Your task to perform on an android device: change the clock style Image 0: 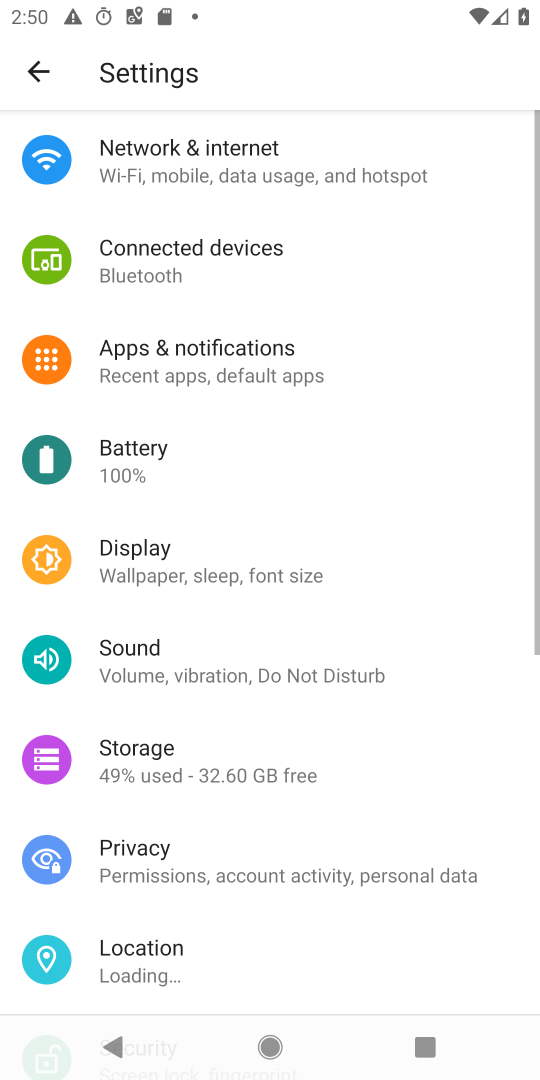
Step 0: press home button
Your task to perform on an android device: change the clock style Image 1: 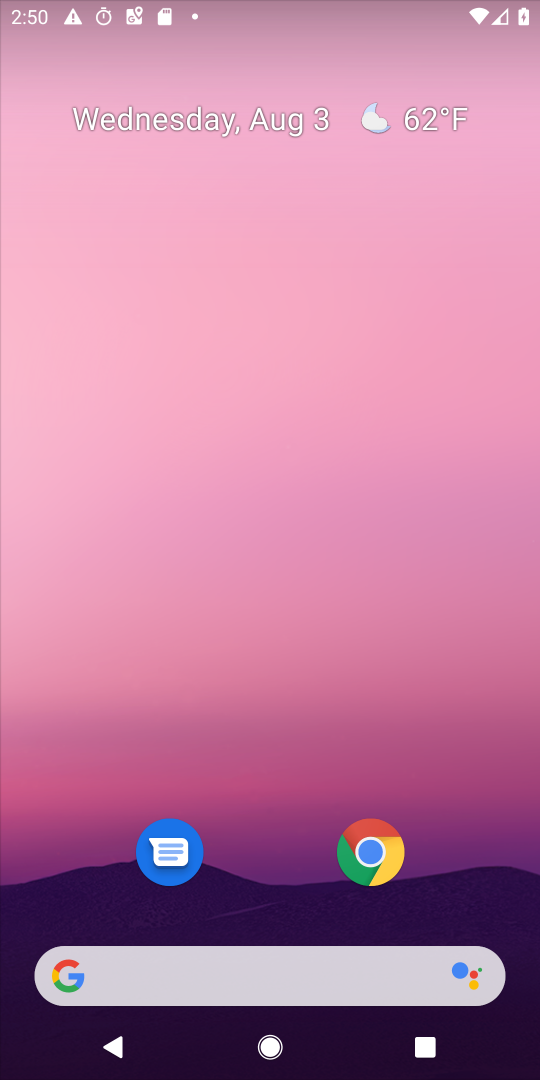
Step 1: drag from (512, 901) to (260, 47)
Your task to perform on an android device: change the clock style Image 2: 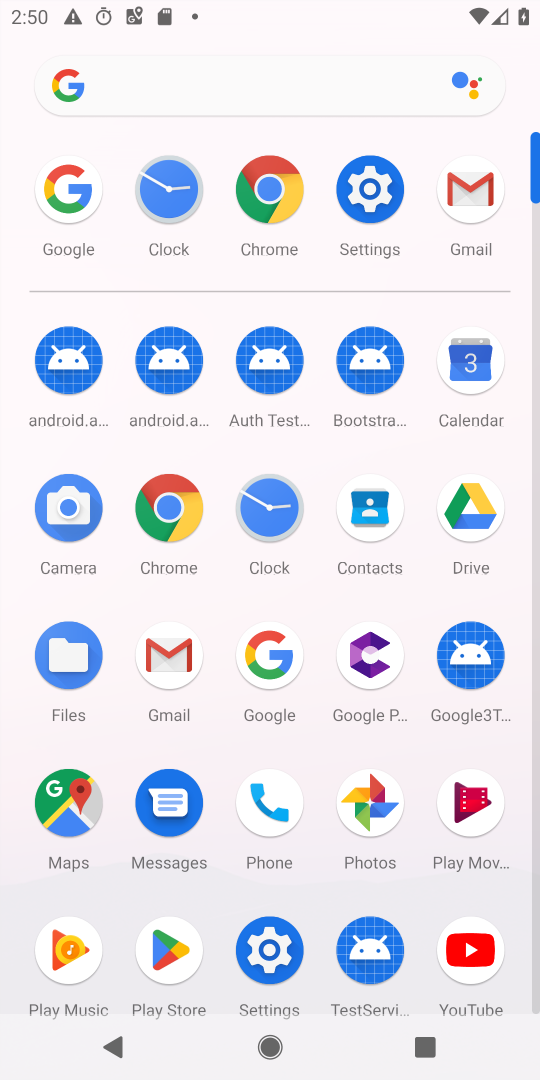
Step 2: click (299, 511)
Your task to perform on an android device: change the clock style Image 3: 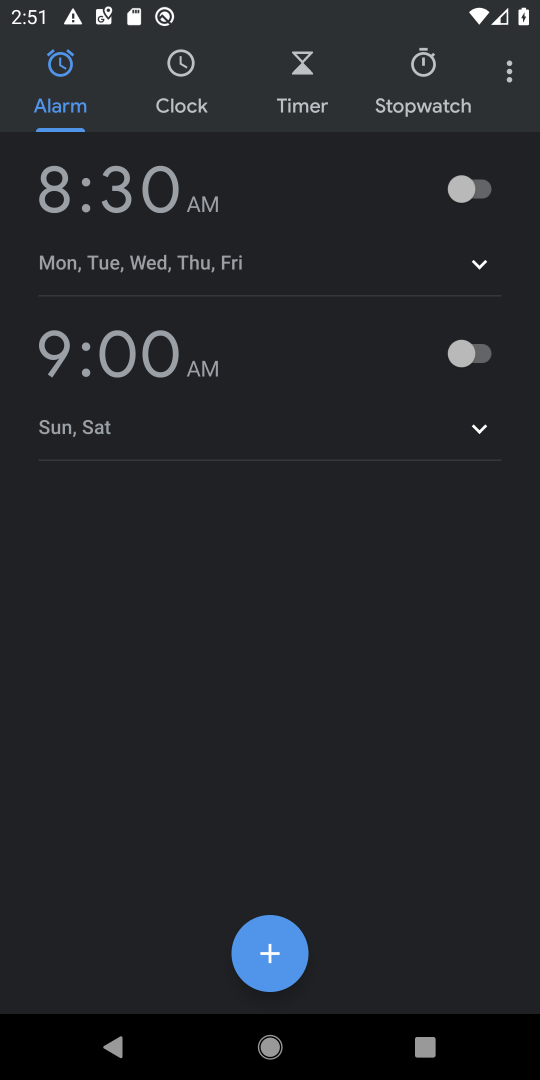
Step 3: click (508, 68)
Your task to perform on an android device: change the clock style Image 4: 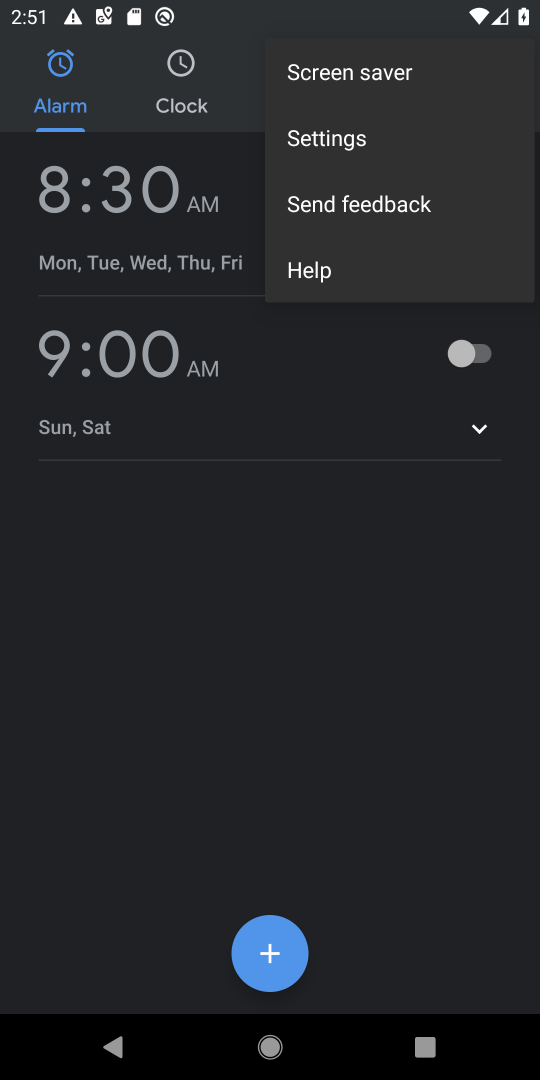
Step 4: click (348, 163)
Your task to perform on an android device: change the clock style Image 5: 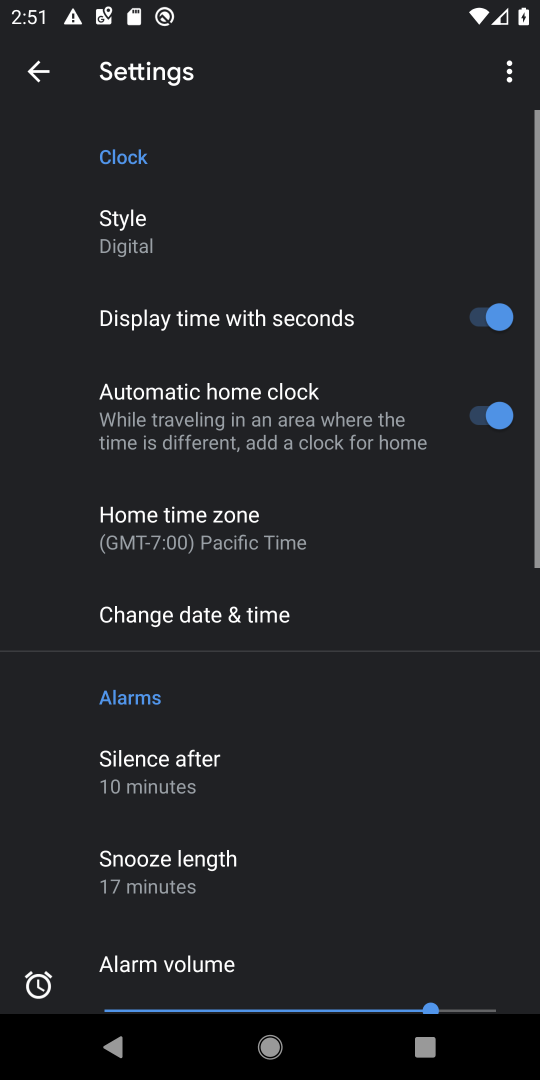
Step 5: click (111, 227)
Your task to perform on an android device: change the clock style Image 6: 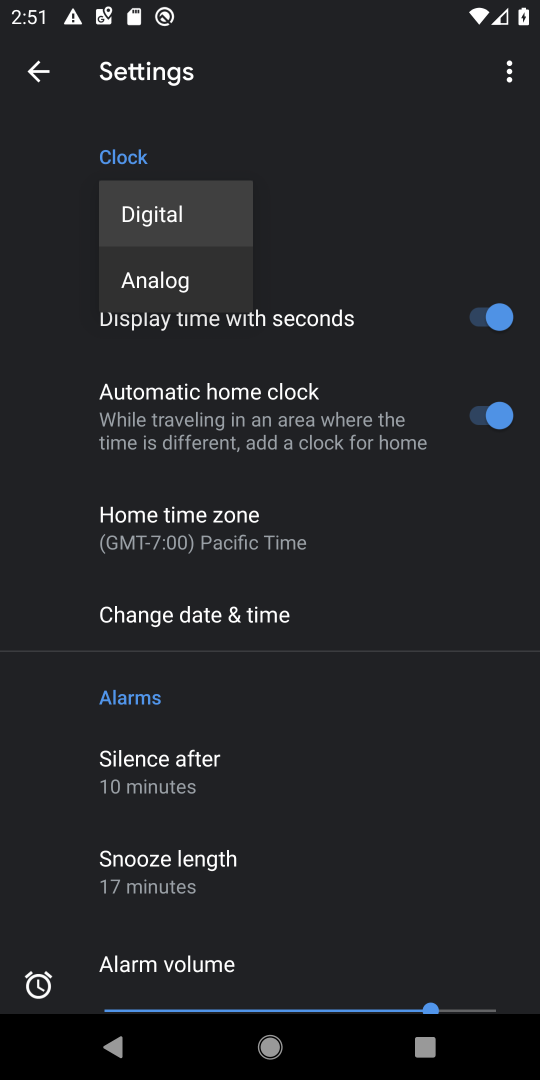
Step 6: click (143, 289)
Your task to perform on an android device: change the clock style Image 7: 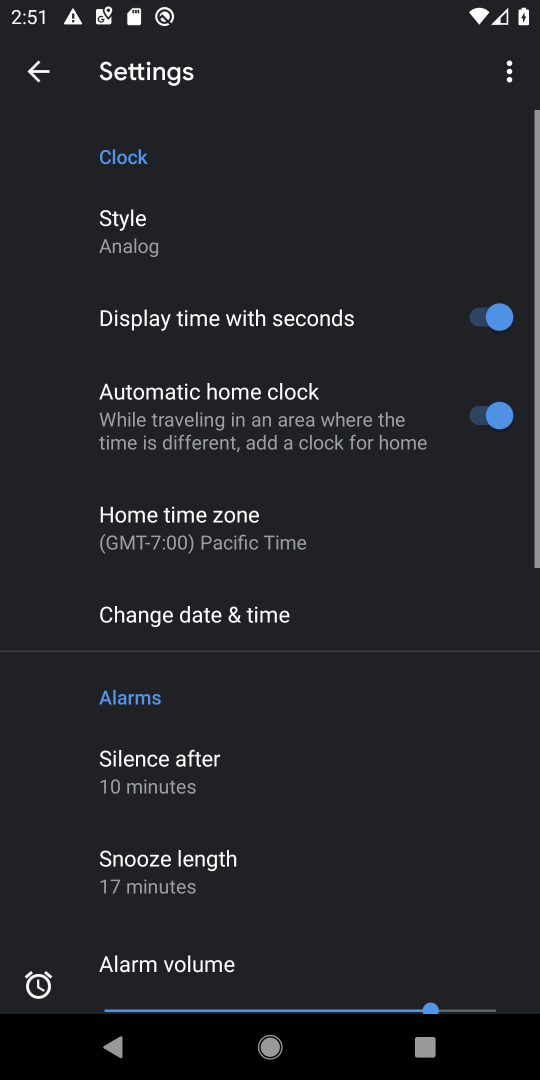
Step 7: task complete